Your task to perform on an android device: toggle wifi Image 0: 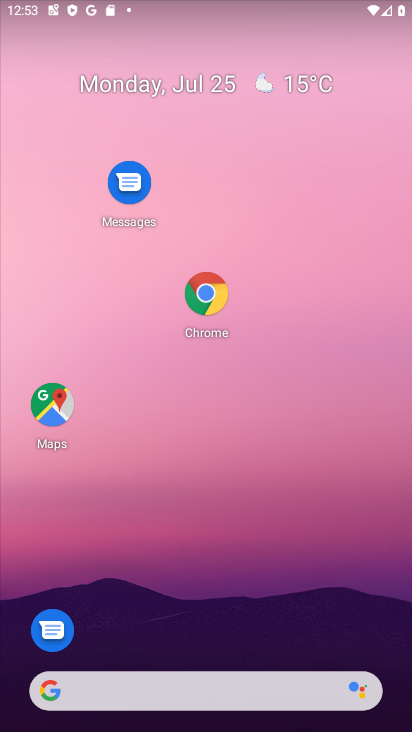
Step 0: drag from (271, 592) to (312, 165)
Your task to perform on an android device: toggle wifi Image 1: 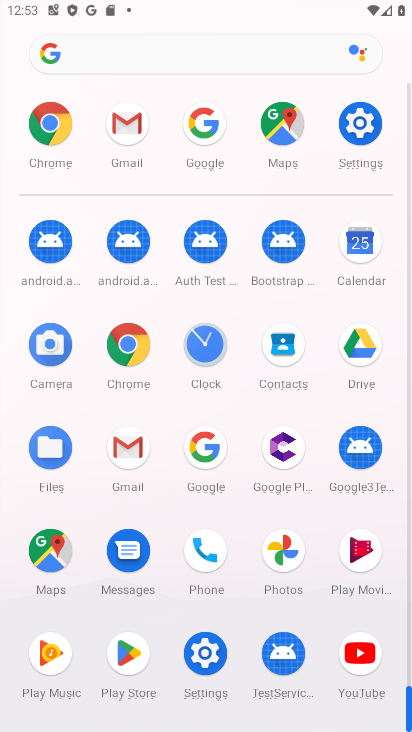
Step 1: drag from (165, 10) to (170, 334)
Your task to perform on an android device: toggle wifi Image 2: 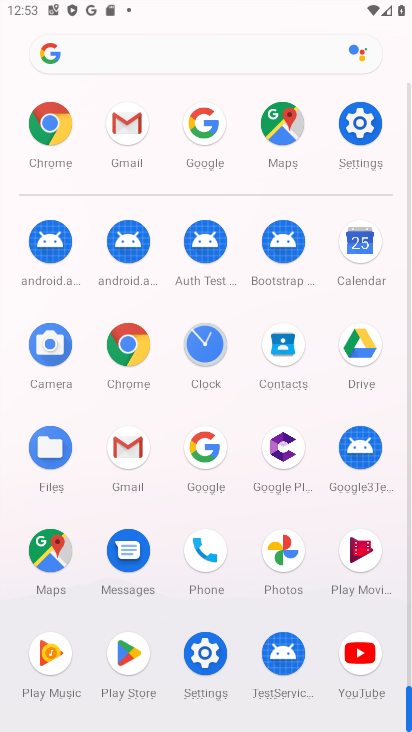
Step 2: drag from (124, 23) to (150, 472)
Your task to perform on an android device: toggle wifi Image 3: 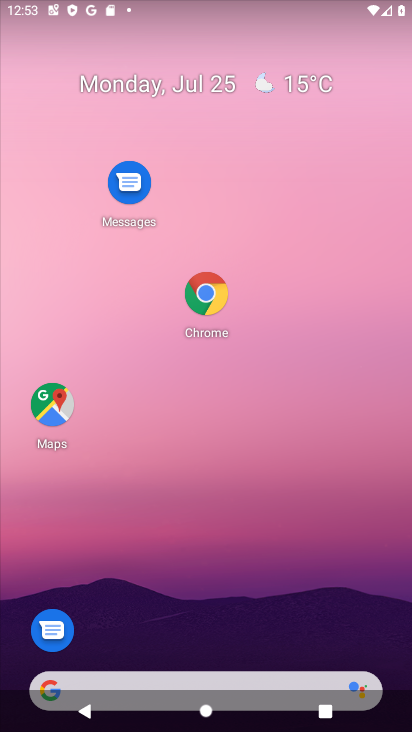
Step 3: drag from (117, 9) to (160, 501)
Your task to perform on an android device: toggle wifi Image 4: 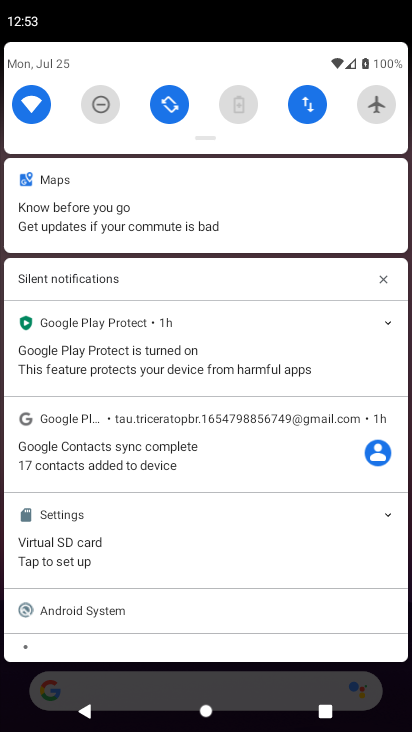
Step 4: click (33, 103)
Your task to perform on an android device: toggle wifi Image 5: 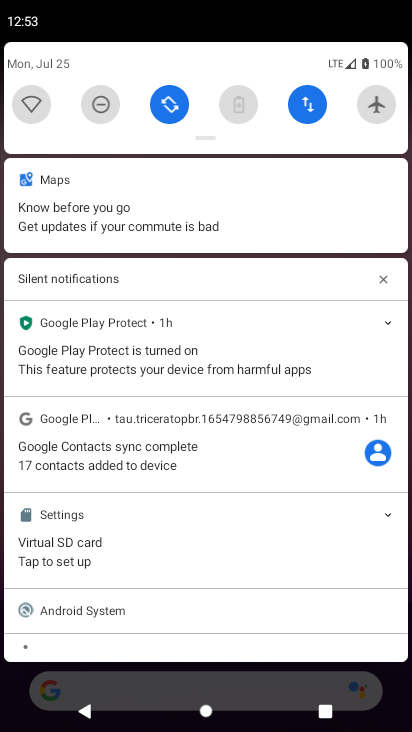
Step 5: task complete